Your task to perform on an android device: Go to Reddit.com Image 0: 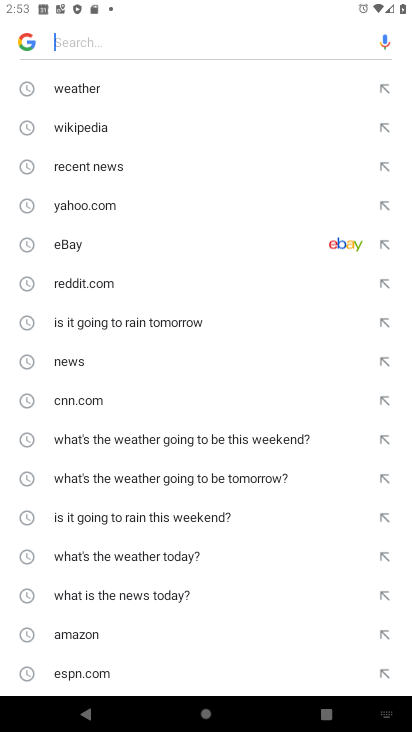
Step 0: click (122, 277)
Your task to perform on an android device: Go to Reddit.com Image 1: 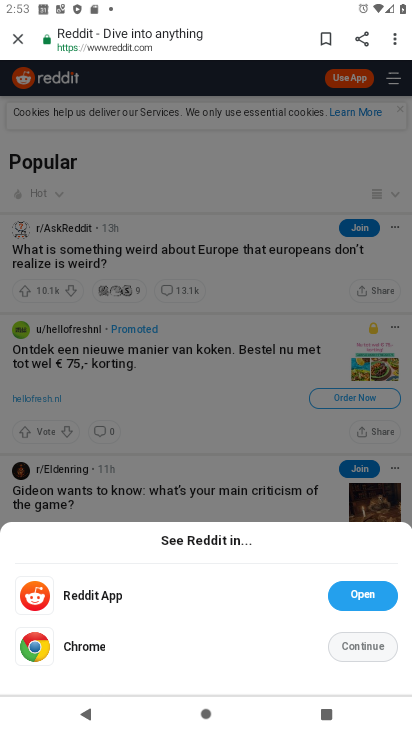
Step 1: task complete